Your task to perform on an android device: turn on bluetooth scan Image 0: 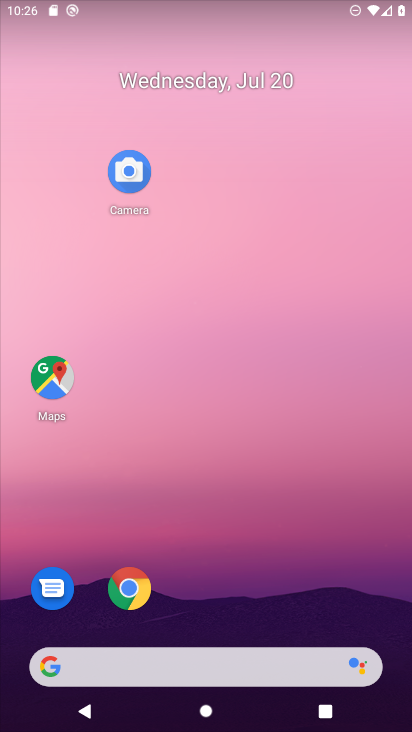
Step 0: press home button
Your task to perform on an android device: turn on bluetooth scan Image 1: 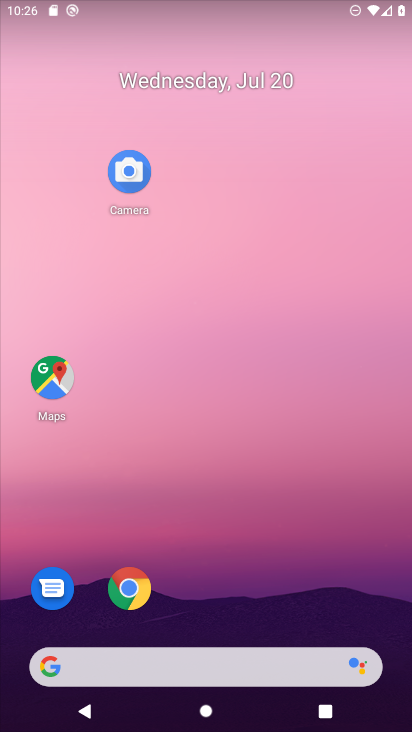
Step 1: drag from (276, 572) to (289, 109)
Your task to perform on an android device: turn on bluetooth scan Image 2: 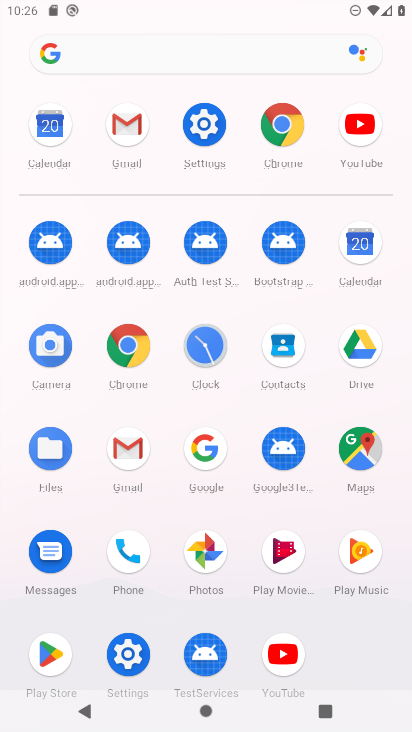
Step 2: click (202, 125)
Your task to perform on an android device: turn on bluetooth scan Image 3: 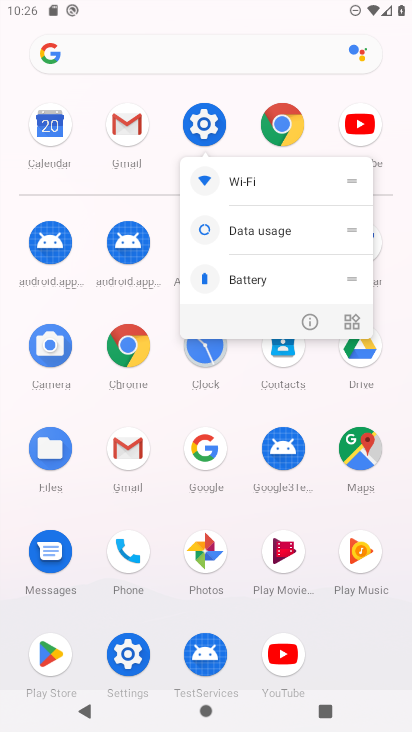
Step 3: click (215, 119)
Your task to perform on an android device: turn on bluetooth scan Image 4: 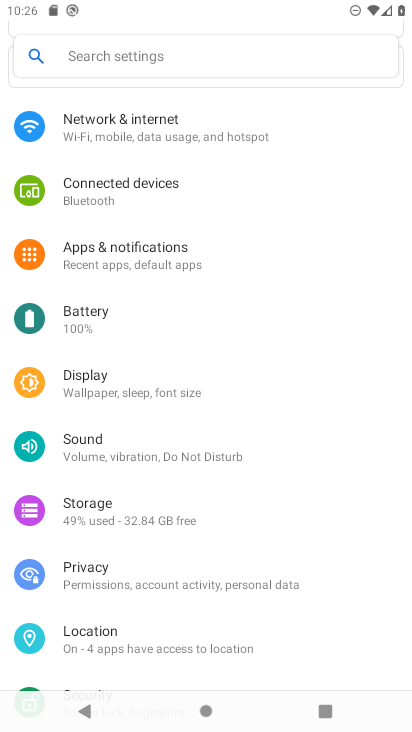
Step 4: click (131, 642)
Your task to perform on an android device: turn on bluetooth scan Image 5: 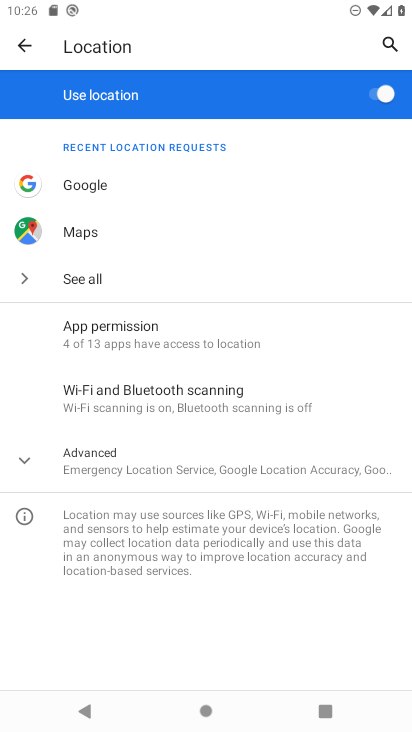
Step 5: click (104, 395)
Your task to perform on an android device: turn on bluetooth scan Image 6: 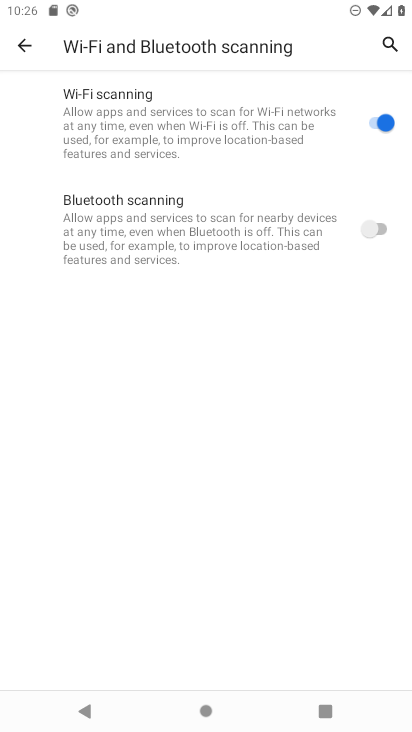
Step 6: click (367, 241)
Your task to perform on an android device: turn on bluetooth scan Image 7: 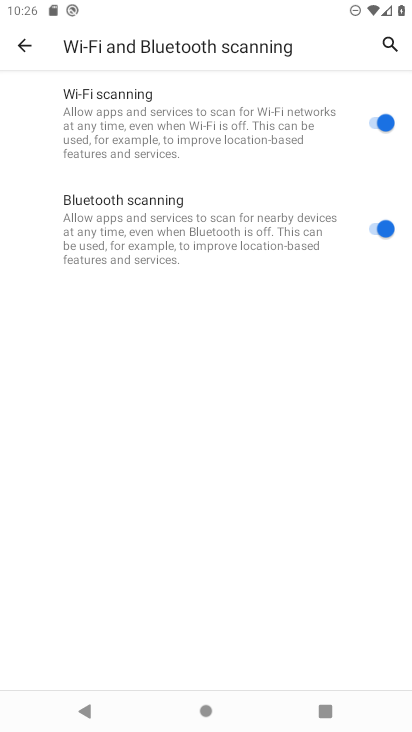
Step 7: task complete